Your task to perform on an android device: toggle wifi Image 0: 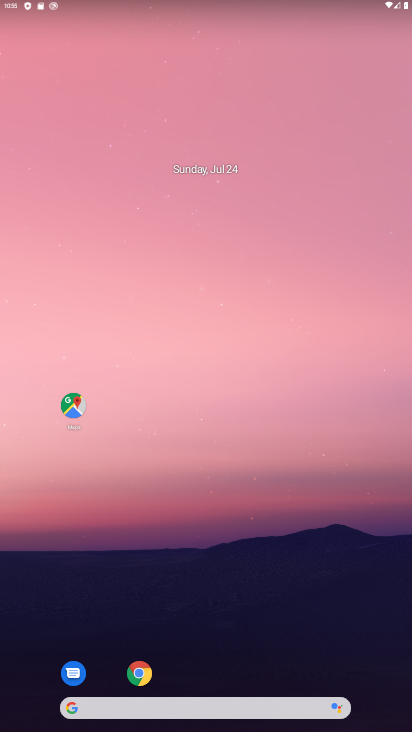
Step 0: drag from (310, 602) to (363, 160)
Your task to perform on an android device: toggle wifi Image 1: 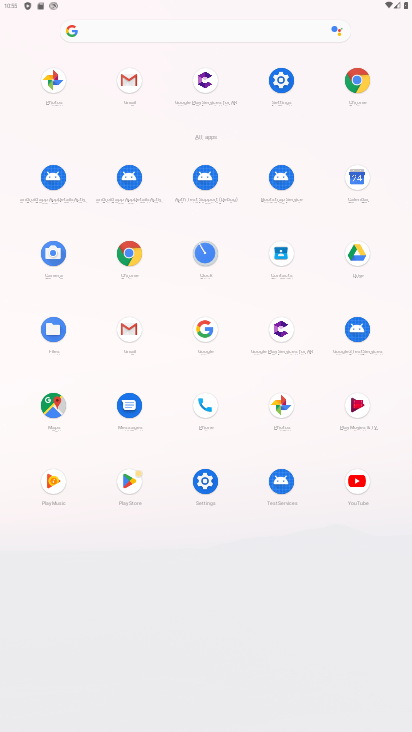
Step 1: click (276, 80)
Your task to perform on an android device: toggle wifi Image 2: 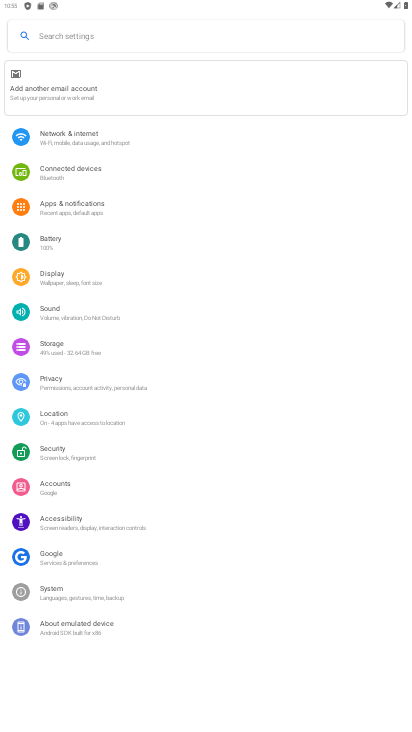
Step 2: click (77, 139)
Your task to perform on an android device: toggle wifi Image 3: 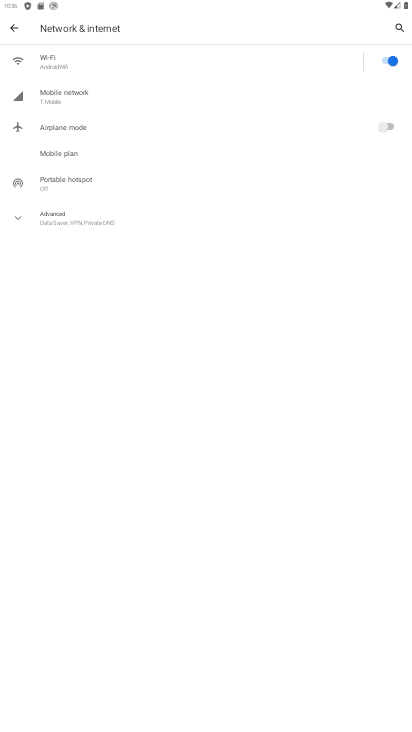
Step 3: click (393, 61)
Your task to perform on an android device: toggle wifi Image 4: 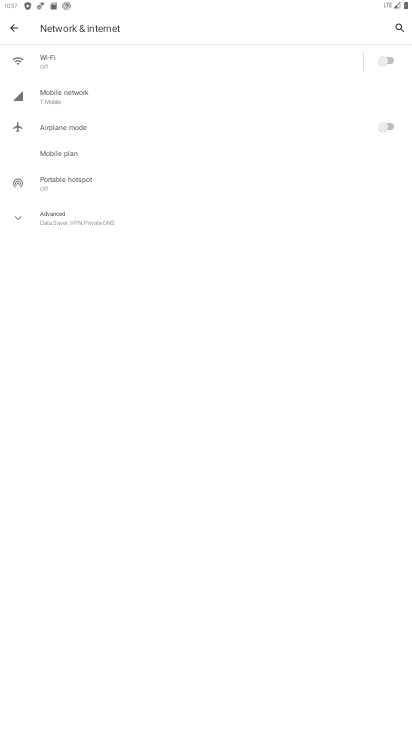
Step 4: task complete